Your task to perform on an android device: Open Reddit.com Image 0: 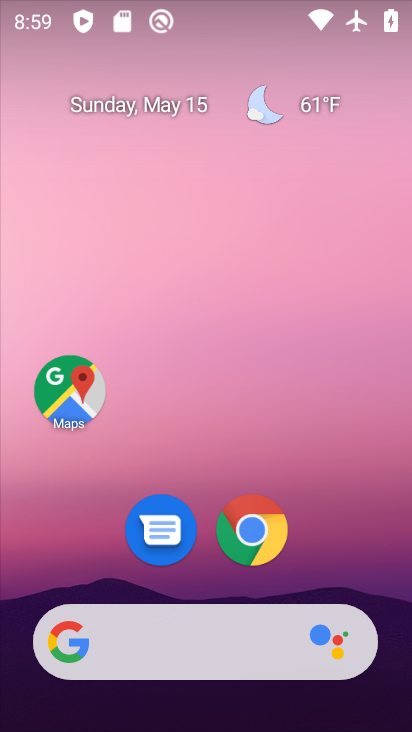
Step 0: click (256, 532)
Your task to perform on an android device: Open Reddit.com Image 1: 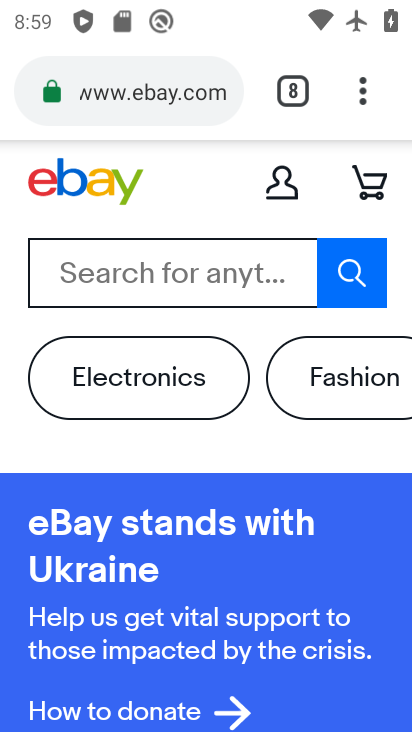
Step 1: click (366, 103)
Your task to perform on an android device: Open Reddit.com Image 2: 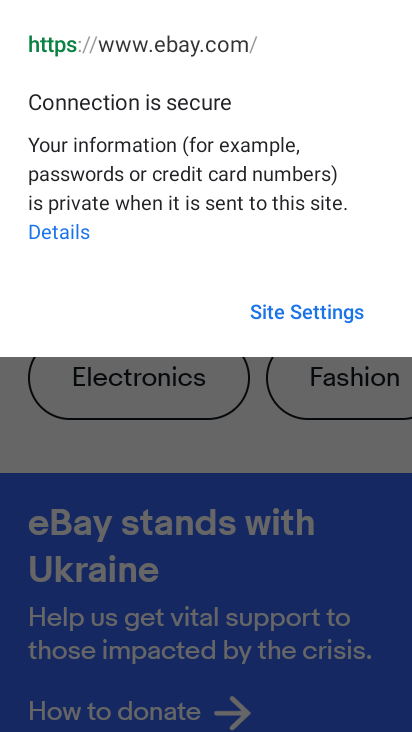
Step 2: click (127, 464)
Your task to perform on an android device: Open Reddit.com Image 3: 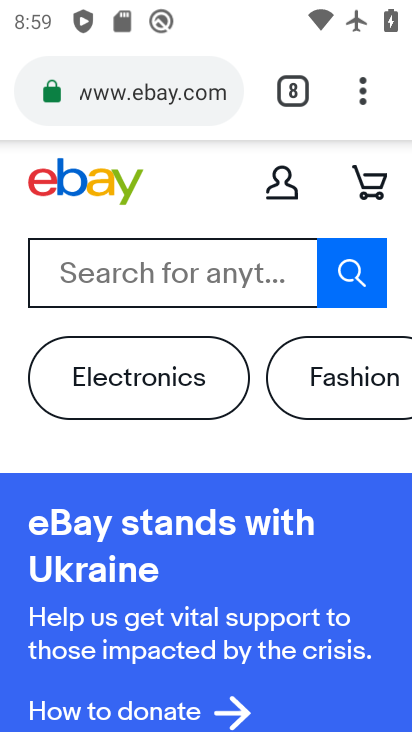
Step 3: click (363, 106)
Your task to perform on an android device: Open Reddit.com Image 4: 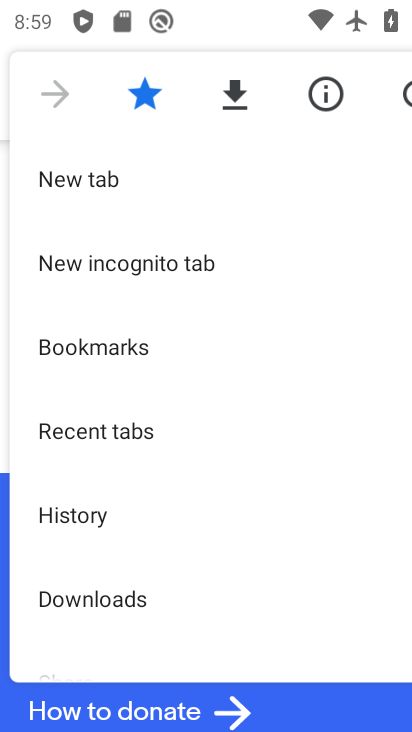
Step 4: click (93, 175)
Your task to perform on an android device: Open Reddit.com Image 5: 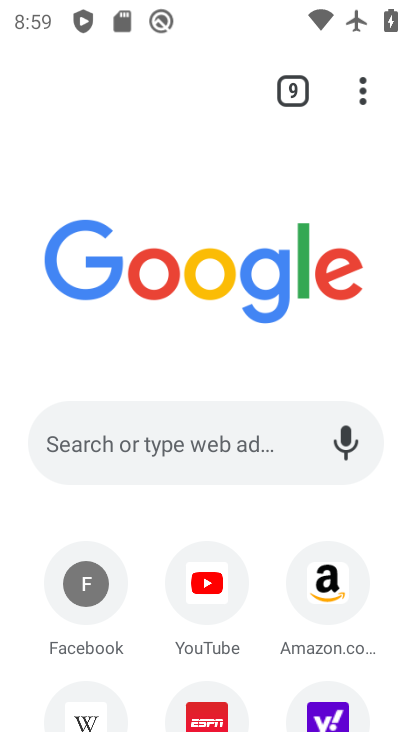
Step 5: click (245, 458)
Your task to perform on an android device: Open Reddit.com Image 6: 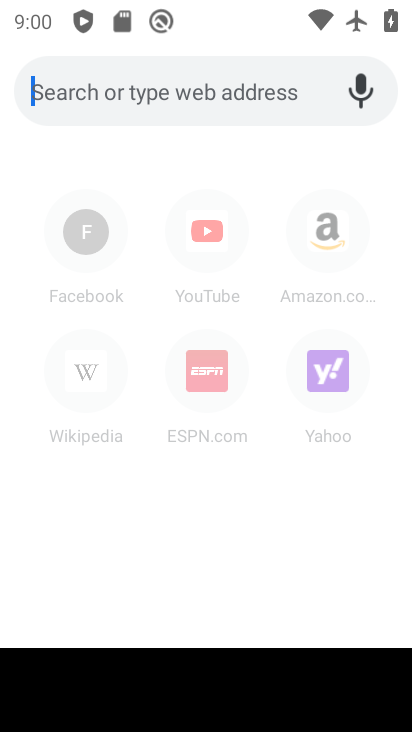
Step 6: type "Reddit.com"
Your task to perform on an android device: Open Reddit.com Image 7: 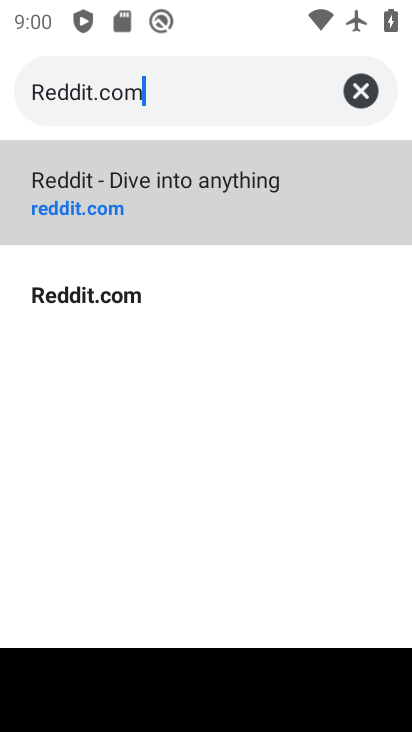
Step 7: type ""
Your task to perform on an android device: Open Reddit.com Image 8: 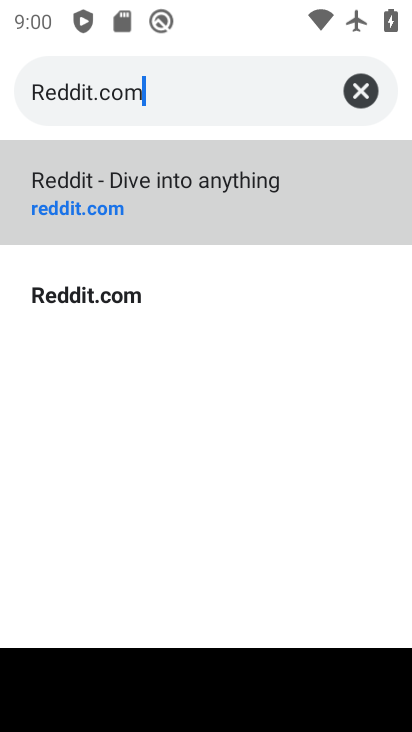
Step 8: click (159, 175)
Your task to perform on an android device: Open Reddit.com Image 9: 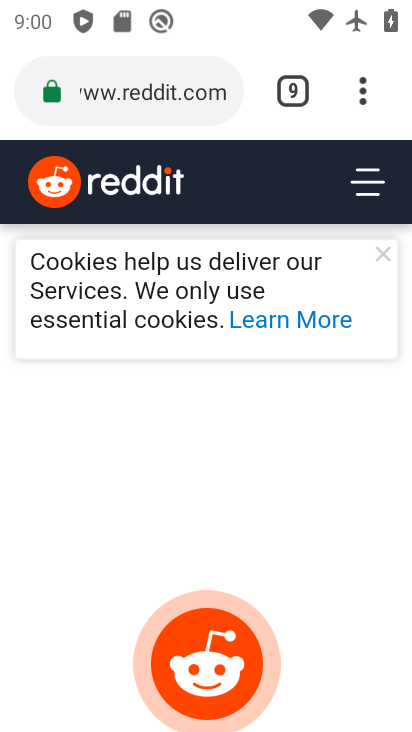
Step 9: task complete